Your task to perform on an android device: What's on my calendar today? Image 0: 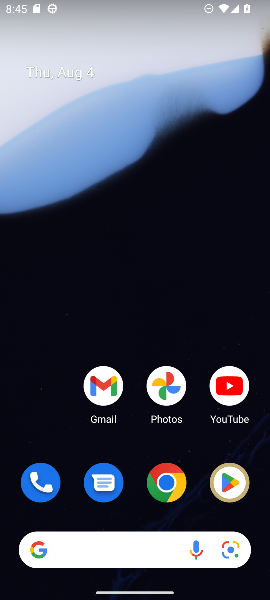
Step 0: press home button
Your task to perform on an android device: What's on my calendar today? Image 1: 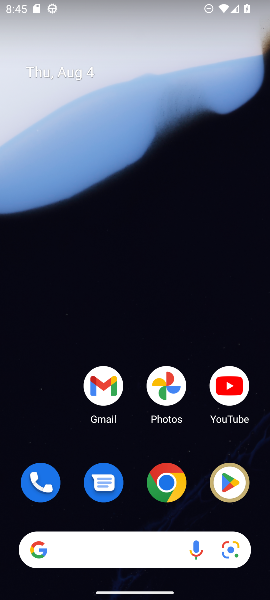
Step 1: drag from (228, 257) to (4, 264)
Your task to perform on an android device: What's on my calendar today? Image 2: 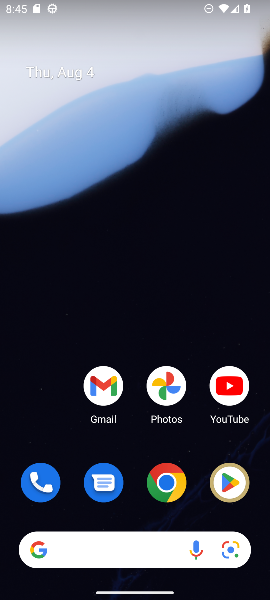
Step 2: drag from (45, 277) to (11, 370)
Your task to perform on an android device: What's on my calendar today? Image 3: 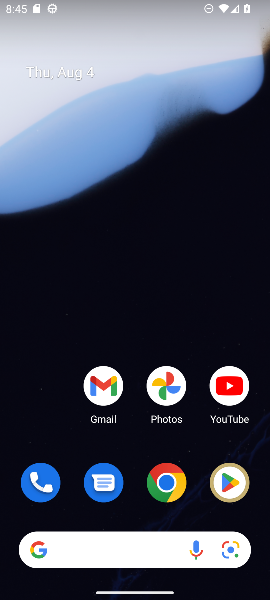
Step 3: drag from (132, 457) to (134, 0)
Your task to perform on an android device: What's on my calendar today? Image 4: 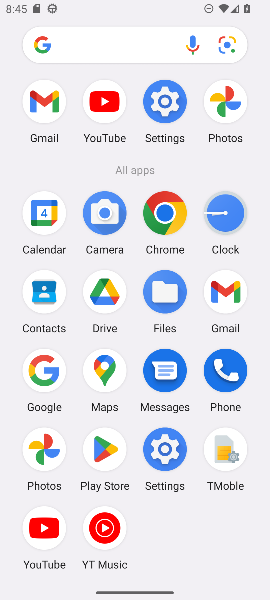
Step 4: click (42, 208)
Your task to perform on an android device: What's on my calendar today? Image 5: 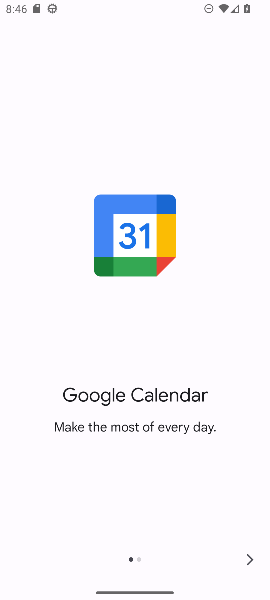
Step 5: click (251, 563)
Your task to perform on an android device: What's on my calendar today? Image 6: 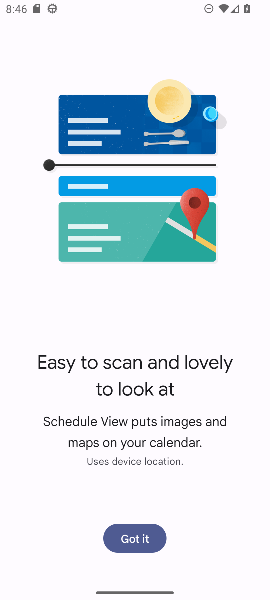
Step 6: click (253, 560)
Your task to perform on an android device: What's on my calendar today? Image 7: 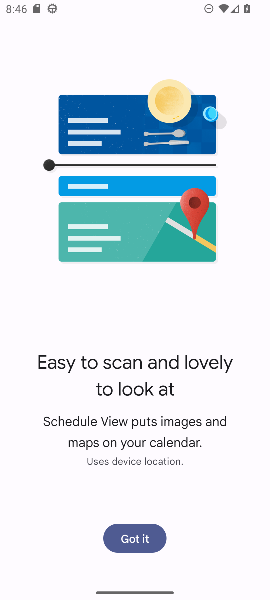
Step 7: click (140, 545)
Your task to perform on an android device: What's on my calendar today? Image 8: 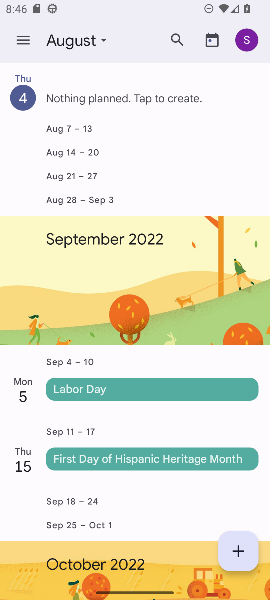
Step 8: click (14, 100)
Your task to perform on an android device: What's on my calendar today? Image 9: 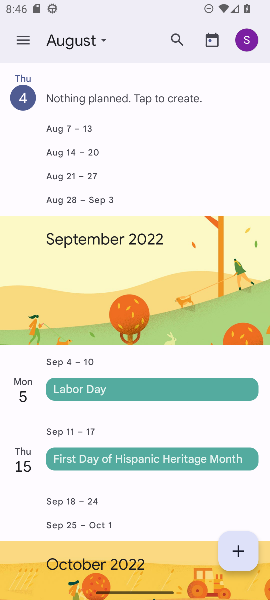
Step 9: click (23, 102)
Your task to perform on an android device: What's on my calendar today? Image 10: 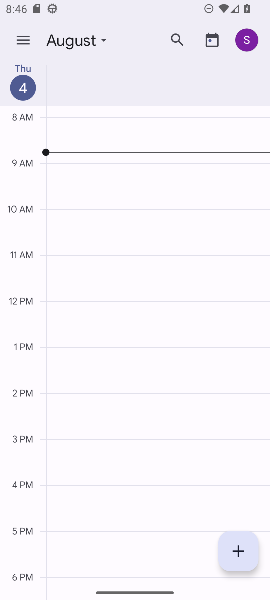
Step 10: task complete